Your task to perform on an android device: visit the assistant section in the google photos Image 0: 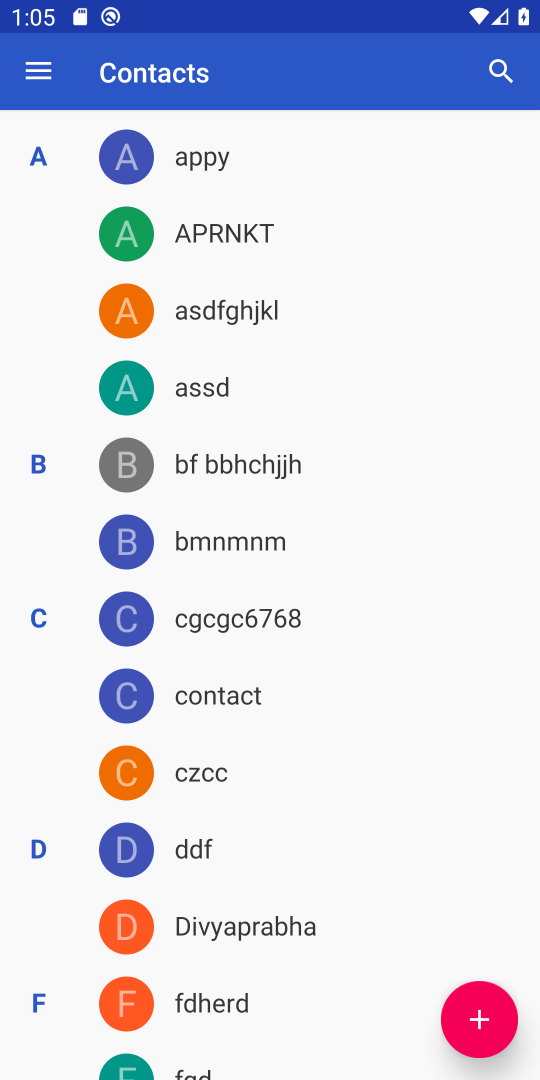
Step 0: press home button
Your task to perform on an android device: visit the assistant section in the google photos Image 1: 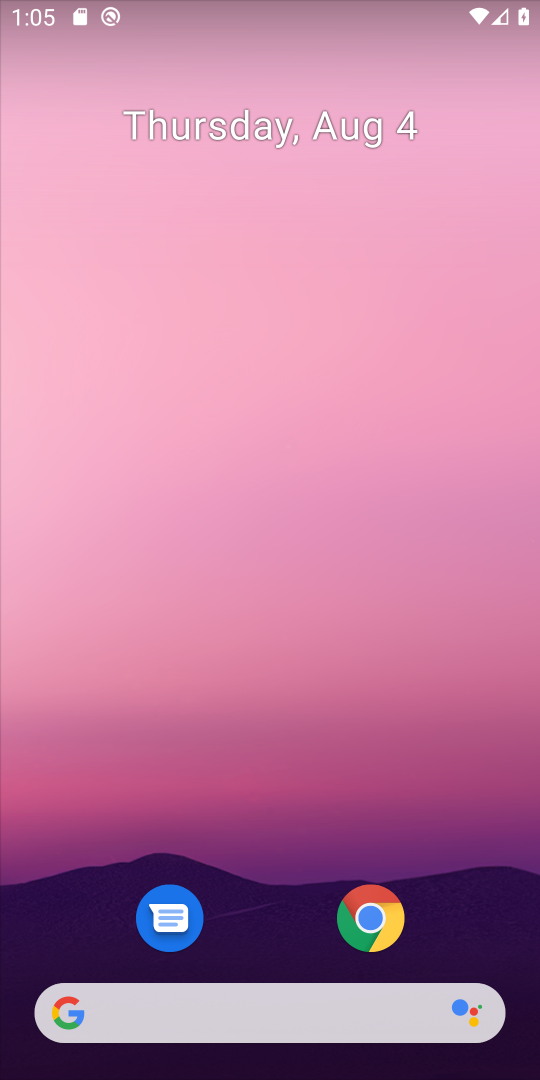
Step 1: drag from (244, 922) to (262, 384)
Your task to perform on an android device: visit the assistant section in the google photos Image 2: 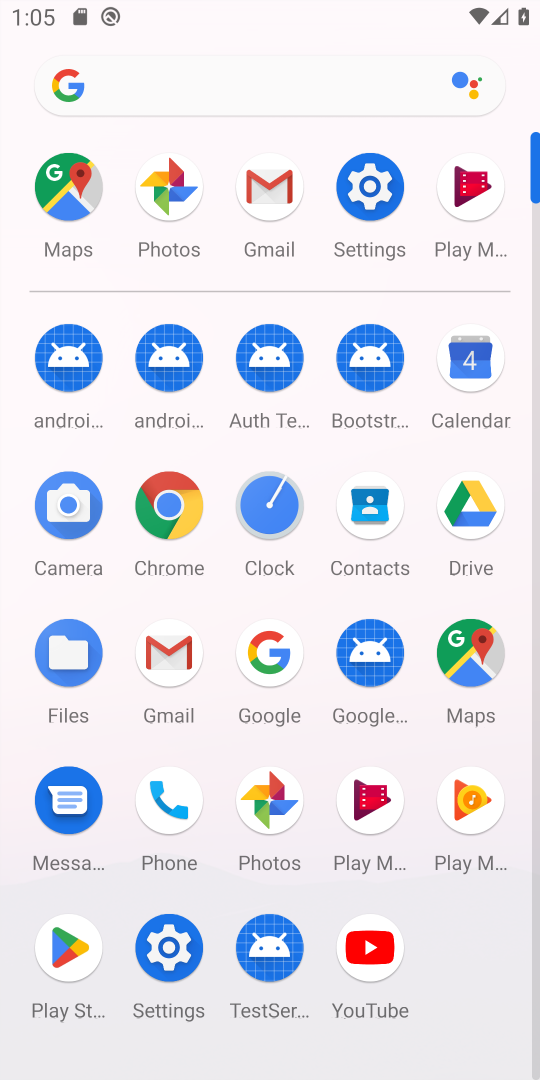
Step 2: click (197, 173)
Your task to perform on an android device: visit the assistant section in the google photos Image 3: 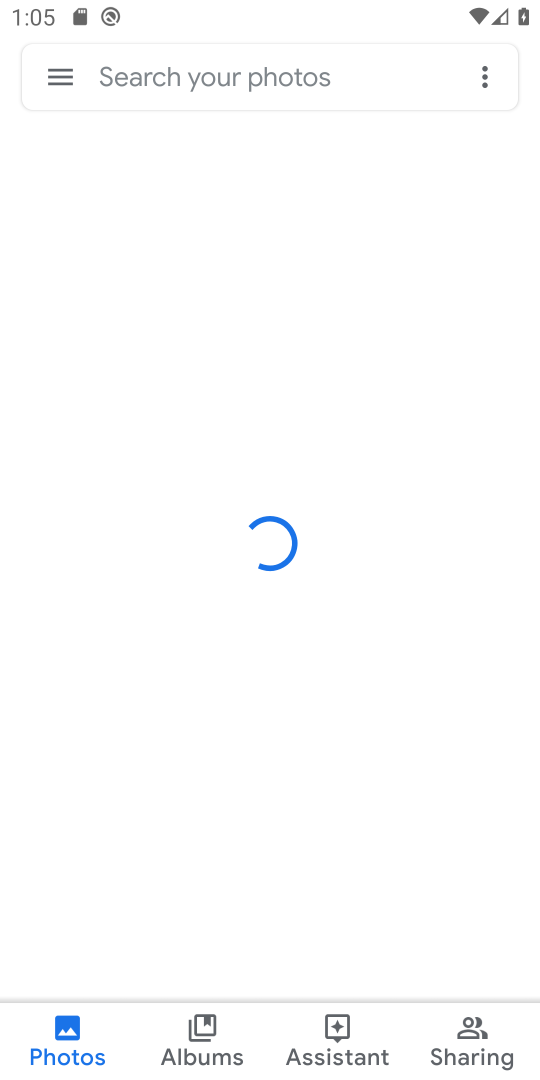
Step 3: click (374, 1025)
Your task to perform on an android device: visit the assistant section in the google photos Image 4: 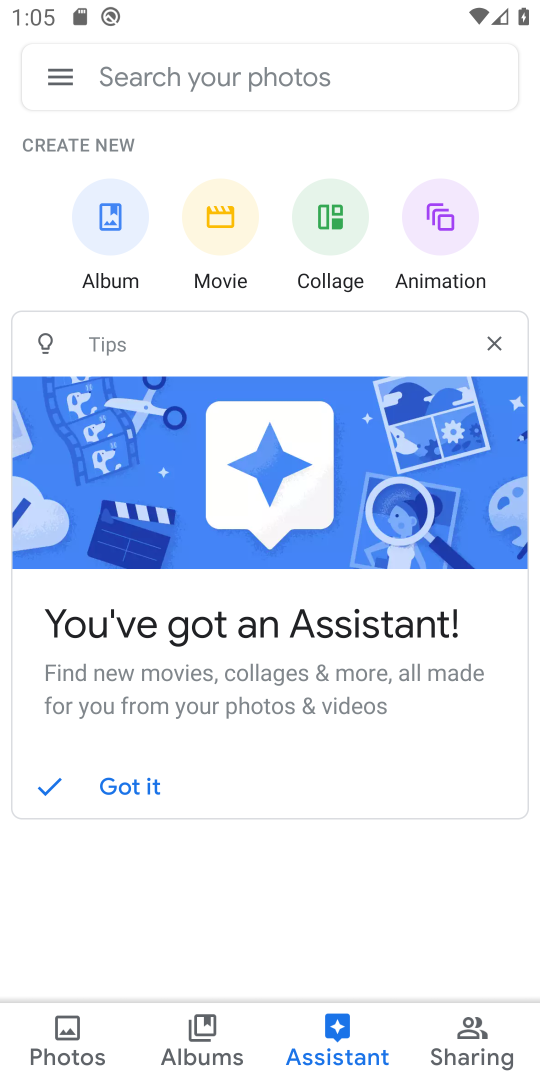
Step 4: task complete